Your task to perform on an android device: read, delete, or share a saved page in the chrome app Image 0: 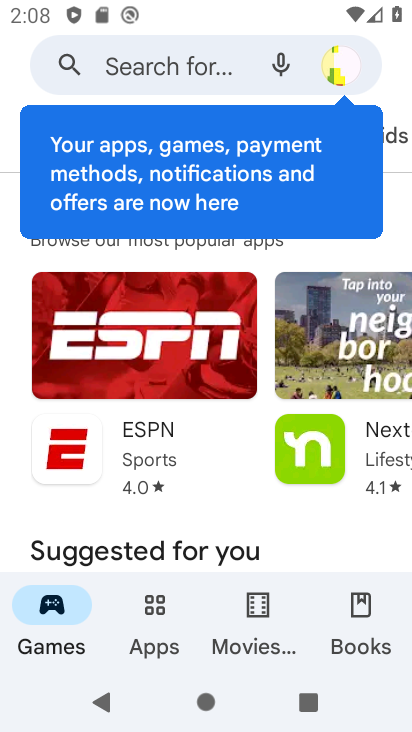
Step 0: press back button
Your task to perform on an android device: read, delete, or share a saved page in the chrome app Image 1: 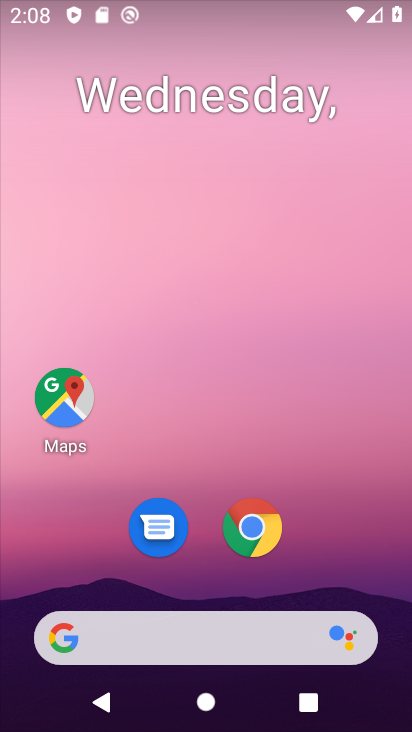
Step 1: click (252, 529)
Your task to perform on an android device: read, delete, or share a saved page in the chrome app Image 2: 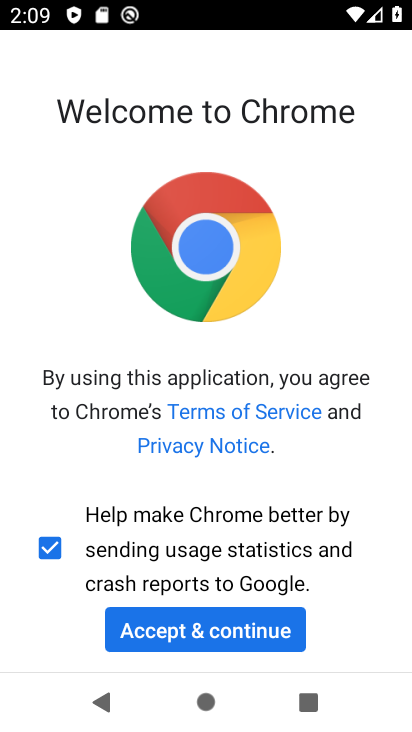
Step 2: click (199, 631)
Your task to perform on an android device: read, delete, or share a saved page in the chrome app Image 3: 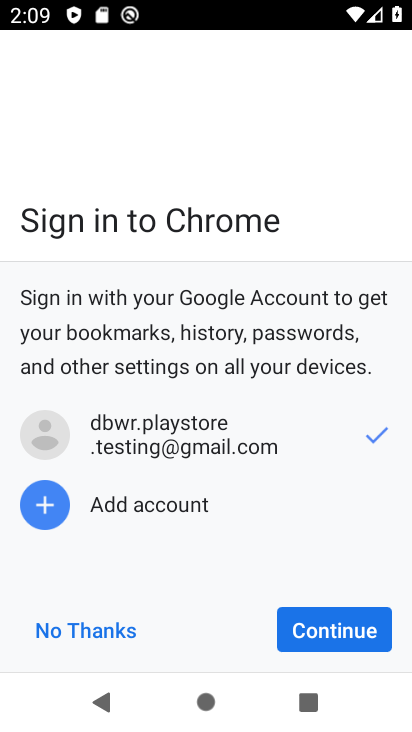
Step 3: click (316, 626)
Your task to perform on an android device: read, delete, or share a saved page in the chrome app Image 4: 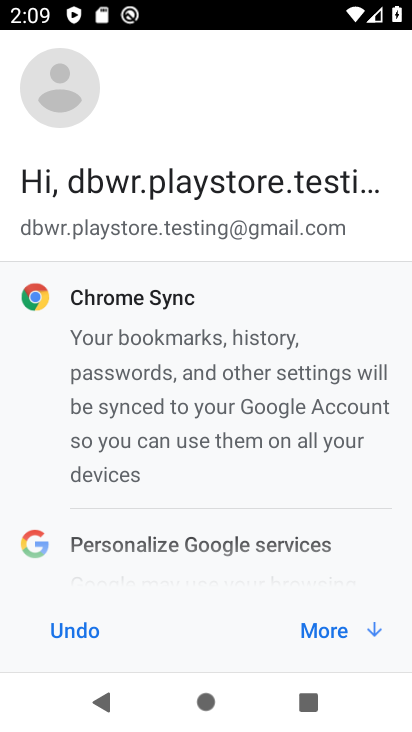
Step 4: click (316, 626)
Your task to perform on an android device: read, delete, or share a saved page in the chrome app Image 5: 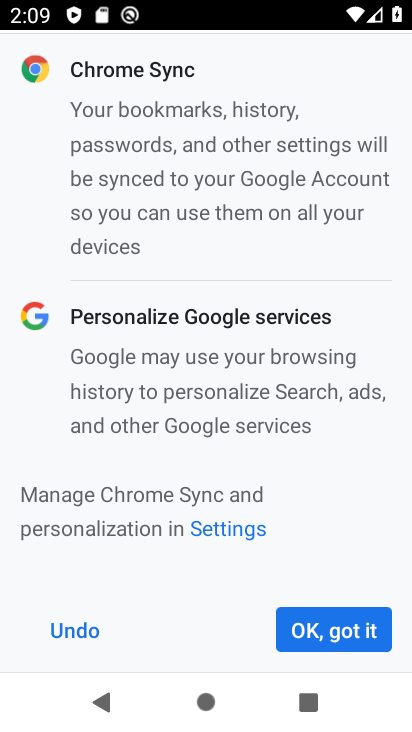
Step 5: click (316, 626)
Your task to perform on an android device: read, delete, or share a saved page in the chrome app Image 6: 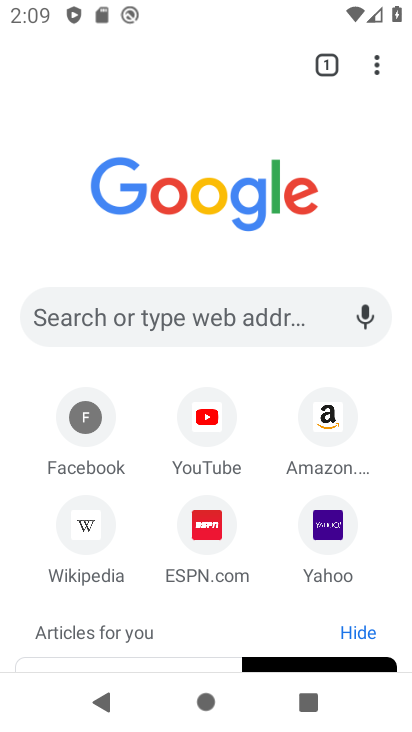
Step 6: click (376, 64)
Your task to perform on an android device: read, delete, or share a saved page in the chrome app Image 7: 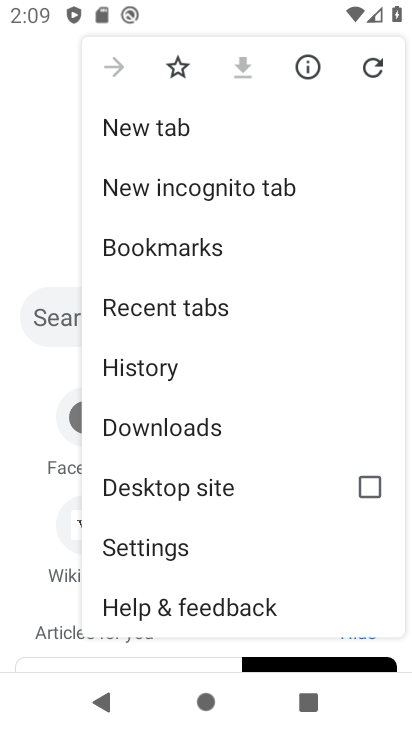
Step 7: click (172, 430)
Your task to perform on an android device: read, delete, or share a saved page in the chrome app Image 8: 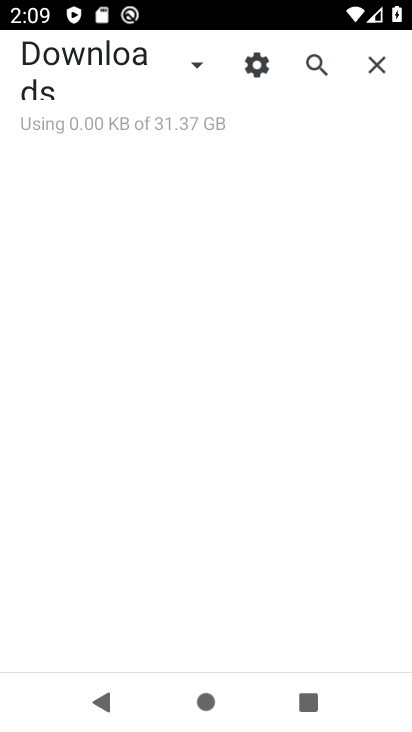
Step 8: click (198, 57)
Your task to perform on an android device: read, delete, or share a saved page in the chrome app Image 9: 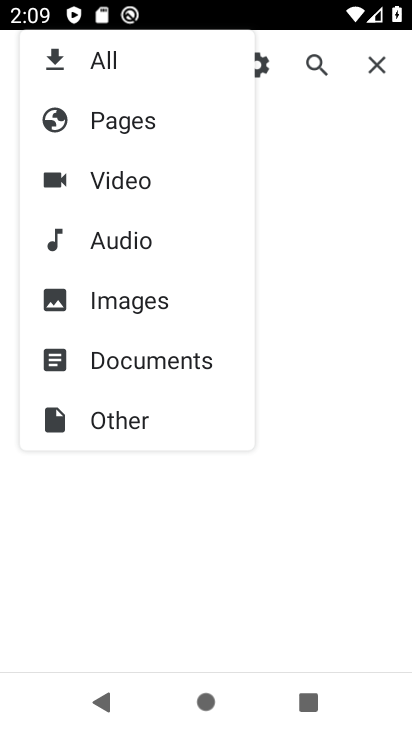
Step 9: click (155, 116)
Your task to perform on an android device: read, delete, or share a saved page in the chrome app Image 10: 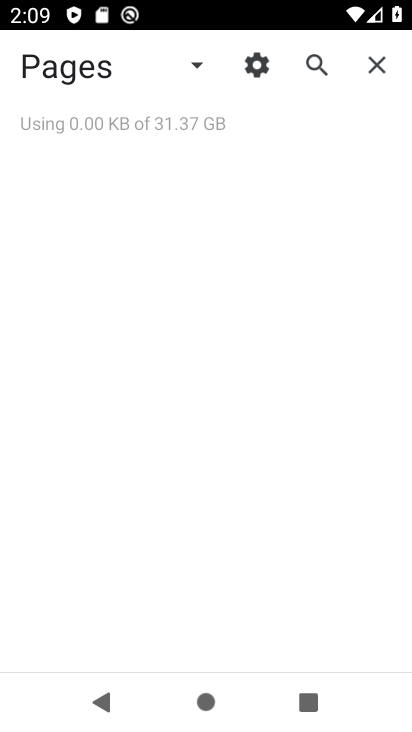
Step 10: click (199, 65)
Your task to perform on an android device: read, delete, or share a saved page in the chrome app Image 11: 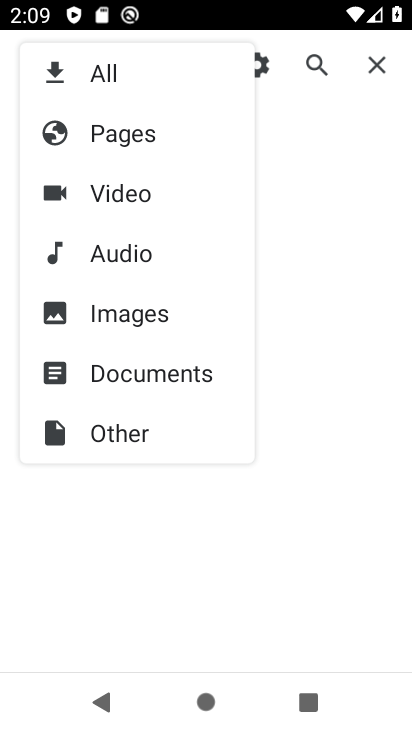
Step 11: click (134, 357)
Your task to perform on an android device: read, delete, or share a saved page in the chrome app Image 12: 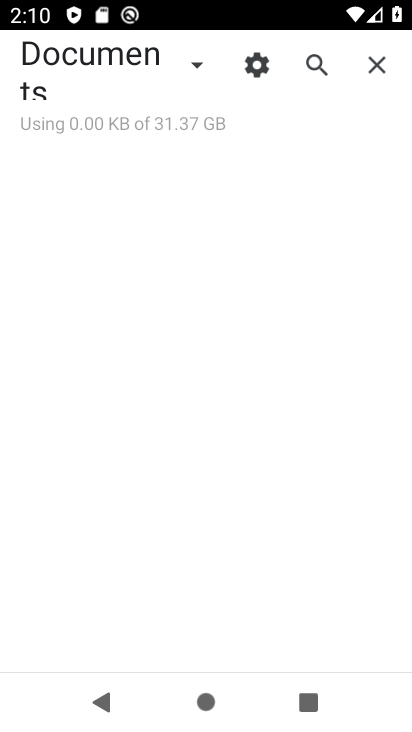
Step 12: task complete